Your task to perform on an android device: remove spam from my inbox in the gmail app Image 0: 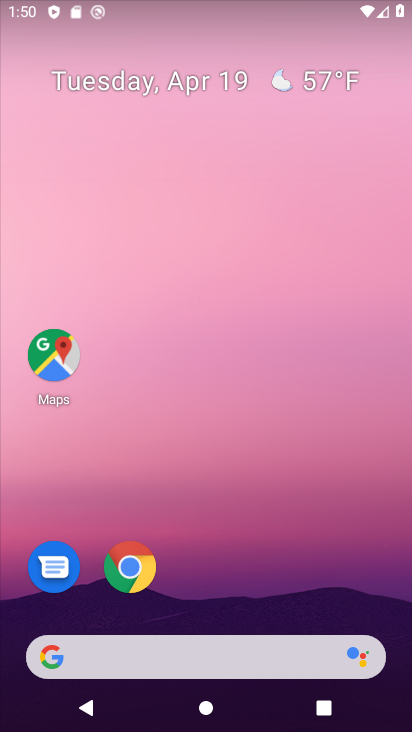
Step 0: drag from (229, 368) to (232, 153)
Your task to perform on an android device: remove spam from my inbox in the gmail app Image 1: 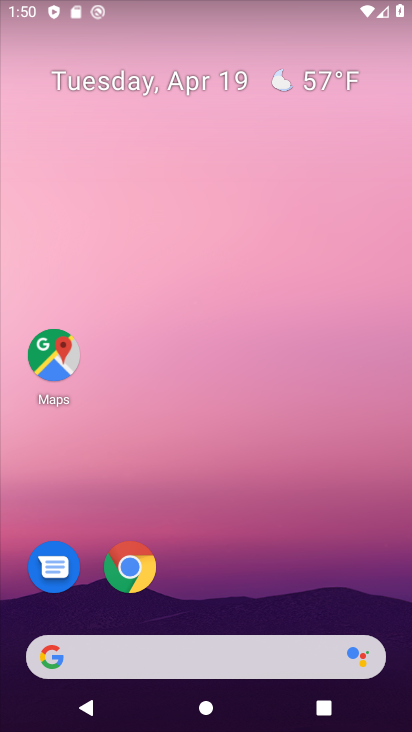
Step 1: drag from (228, 576) to (224, 244)
Your task to perform on an android device: remove spam from my inbox in the gmail app Image 2: 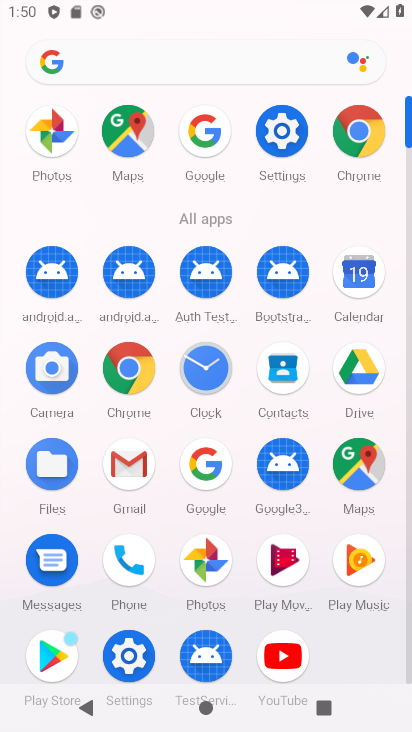
Step 2: click (125, 468)
Your task to perform on an android device: remove spam from my inbox in the gmail app Image 3: 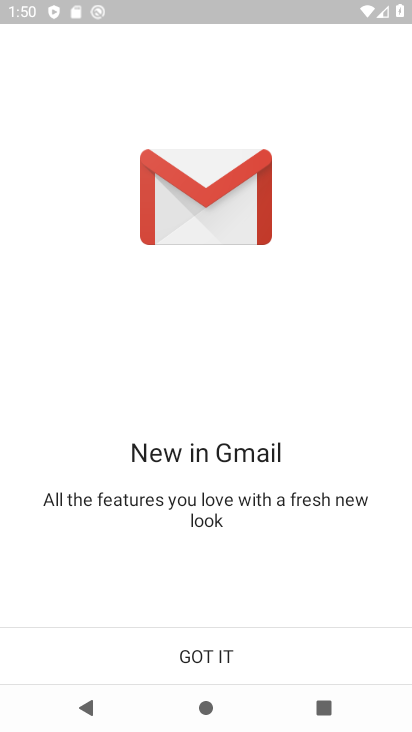
Step 3: click (212, 652)
Your task to perform on an android device: remove spam from my inbox in the gmail app Image 4: 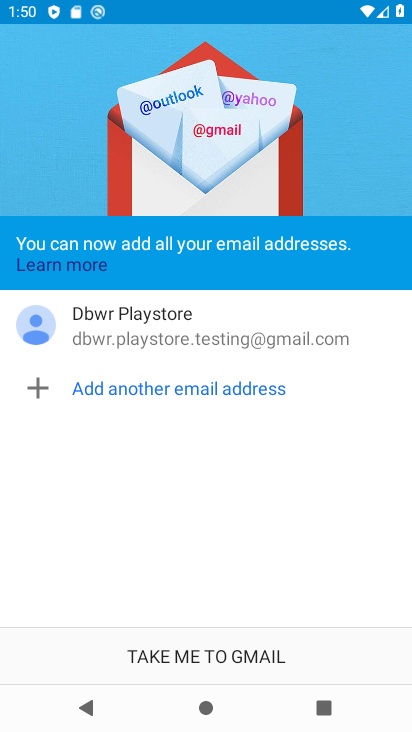
Step 4: click (212, 652)
Your task to perform on an android device: remove spam from my inbox in the gmail app Image 5: 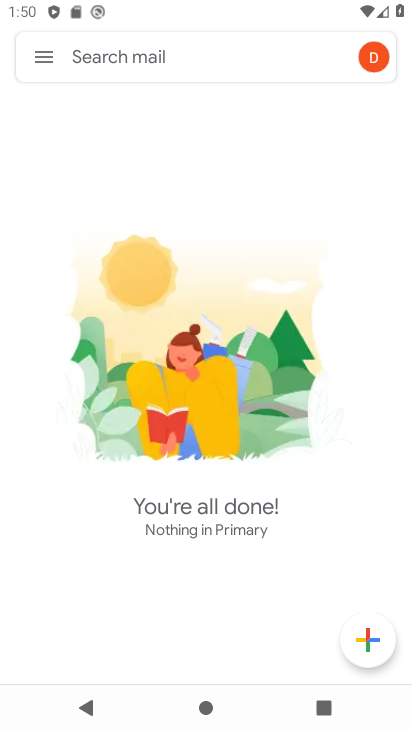
Step 5: click (45, 59)
Your task to perform on an android device: remove spam from my inbox in the gmail app Image 6: 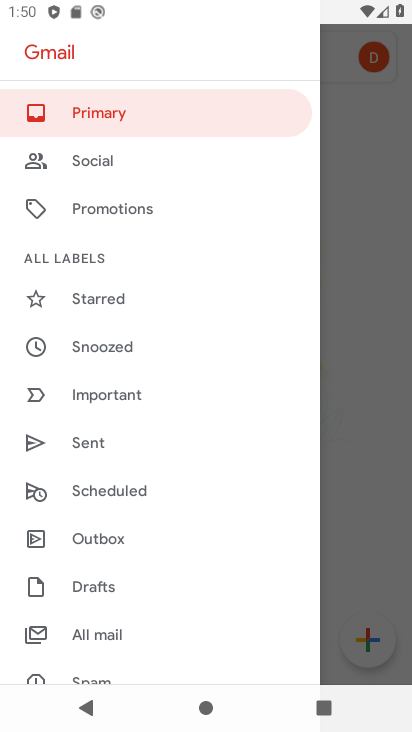
Step 6: drag from (176, 555) to (160, 301)
Your task to perform on an android device: remove spam from my inbox in the gmail app Image 7: 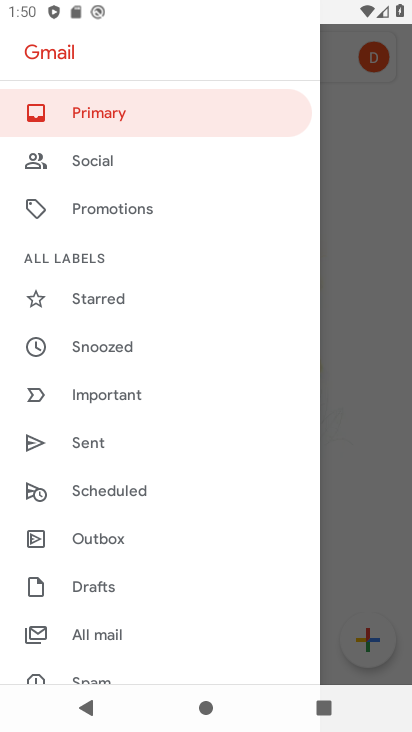
Step 7: drag from (178, 538) to (196, 292)
Your task to perform on an android device: remove spam from my inbox in the gmail app Image 8: 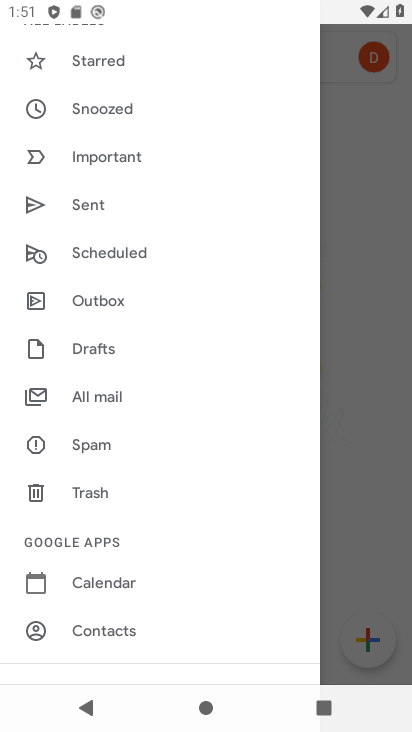
Step 8: click (115, 395)
Your task to perform on an android device: remove spam from my inbox in the gmail app Image 9: 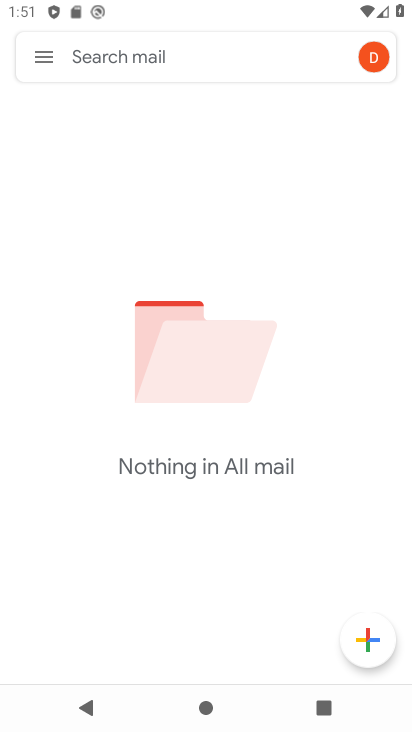
Step 9: task complete